Your task to perform on an android device: Go to Wikipedia Image 0: 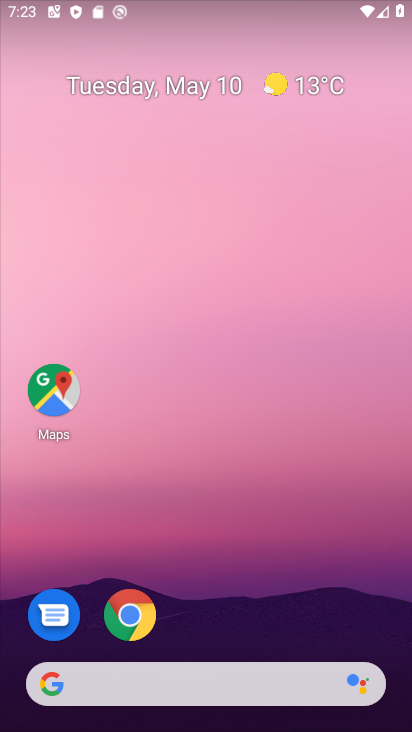
Step 0: drag from (304, 542) to (407, 0)
Your task to perform on an android device: Go to Wikipedia Image 1: 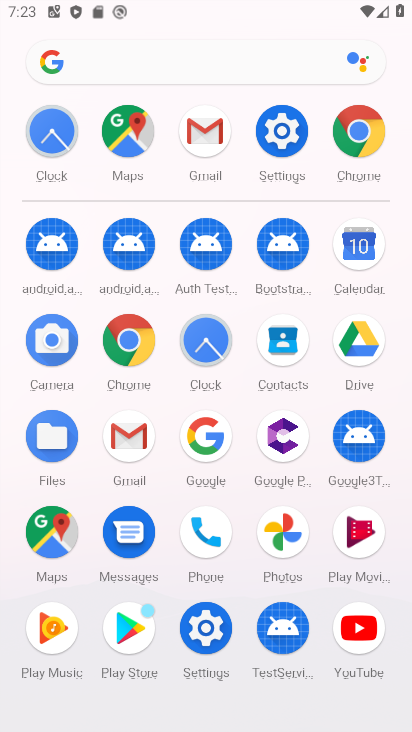
Step 1: click (363, 134)
Your task to perform on an android device: Go to Wikipedia Image 2: 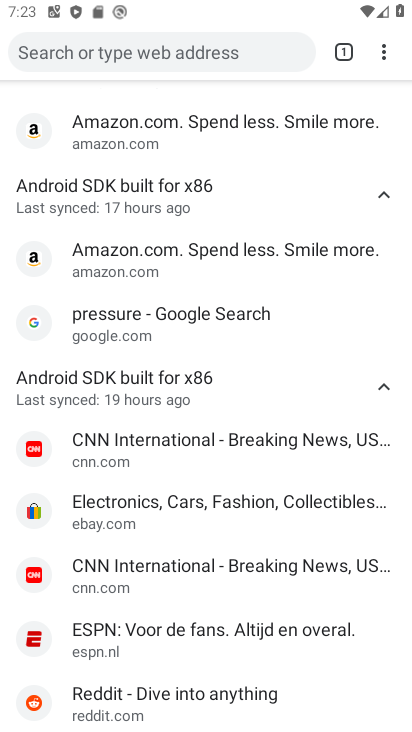
Step 2: click (193, 58)
Your task to perform on an android device: Go to Wikipedia Image 3: 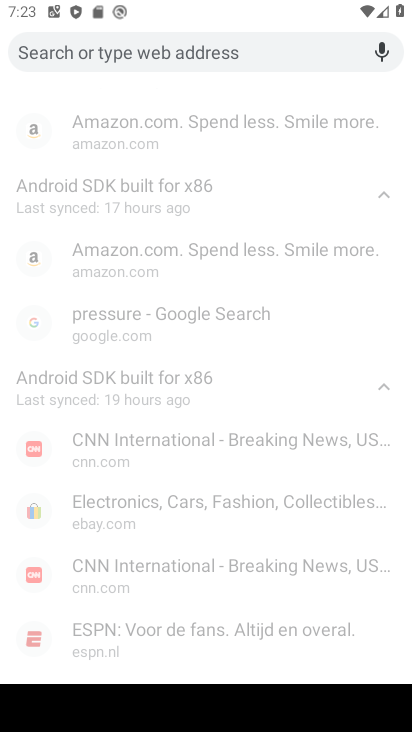
Step 3: type "wikipedia"
Your task to perform on an android device: Go to Wikipedia Image 4: 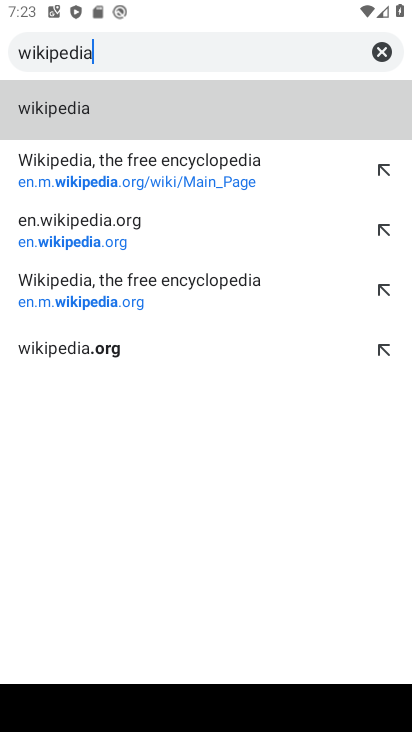
Step 4: click (33, 112)
Your task to perform on an android device: Go to Wikipedia Image 5: 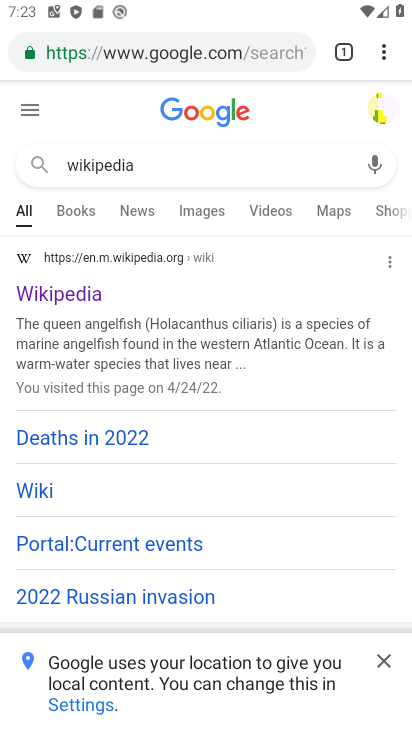
Step 5: click (59, 294)
Your task to perform on an android device: Go to Wikipedia Image 6: 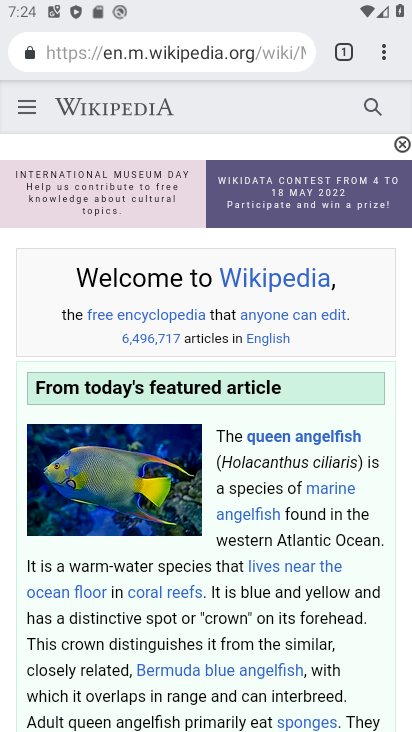
Step 6: task complete